Your task to perform on an android device: turn on location history Image 0: 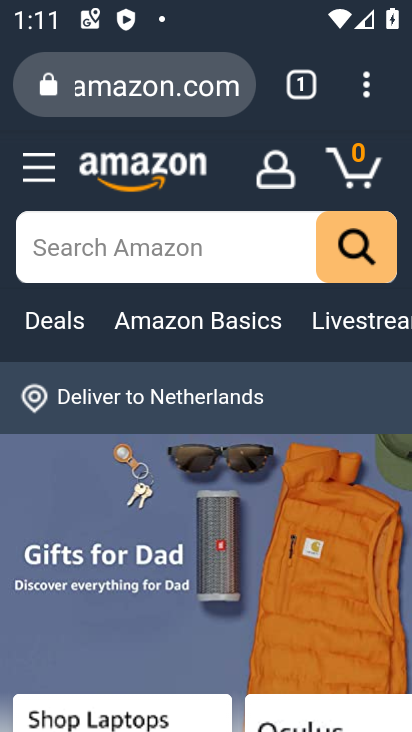
Step 0: press home button
Your task to perform on an android device: turn on location history Image 1: 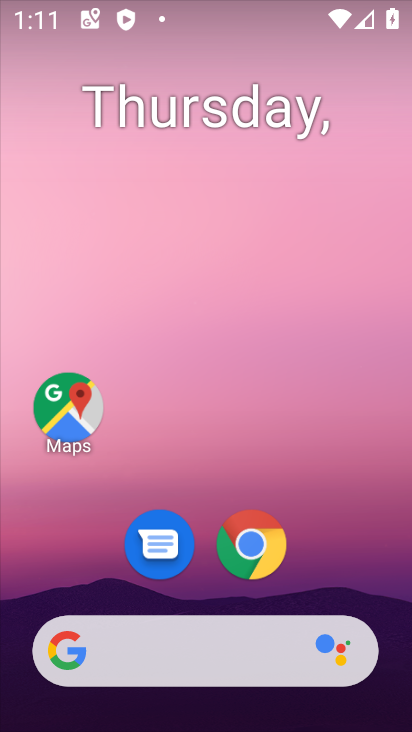
Step 1: drag from (220, 616) to (222, 77)
Your task to perform on an android device: turn on location history Image 2: 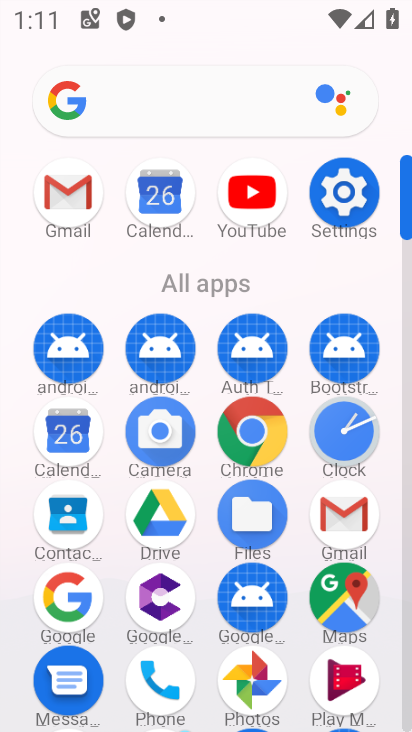
Step 2: click (329, 188)
Your task to perform on an android device: turn on location history Image 3: 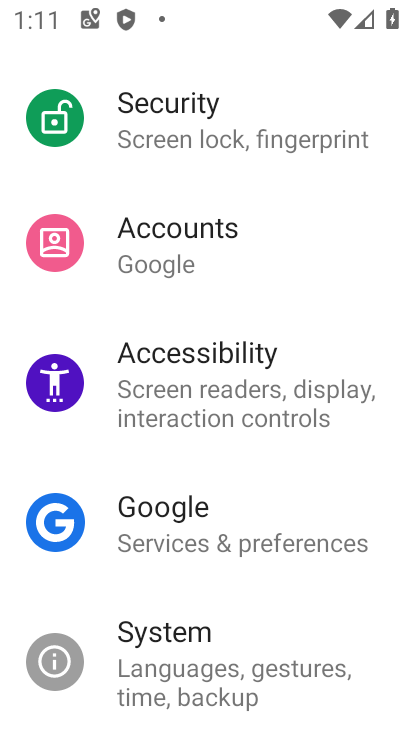
Step 3: drag from (217, 663) to (233, 201)
Your task to perform on an android device: turn on location history Image 4: 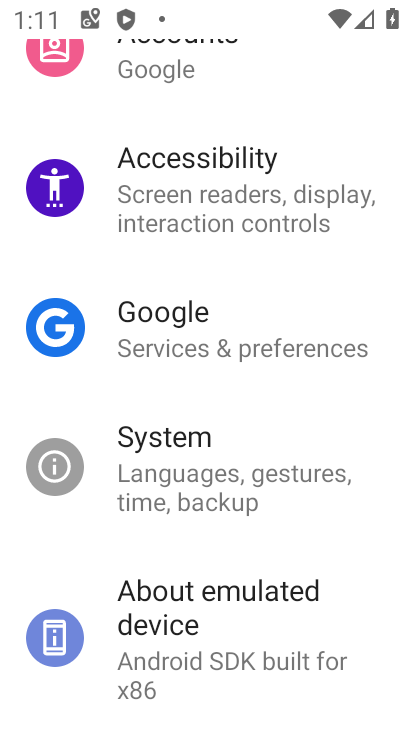
Step 4: drag from (206, 654) to (217, 257)
Your task to perform on an android device: turn on location history Image 5: 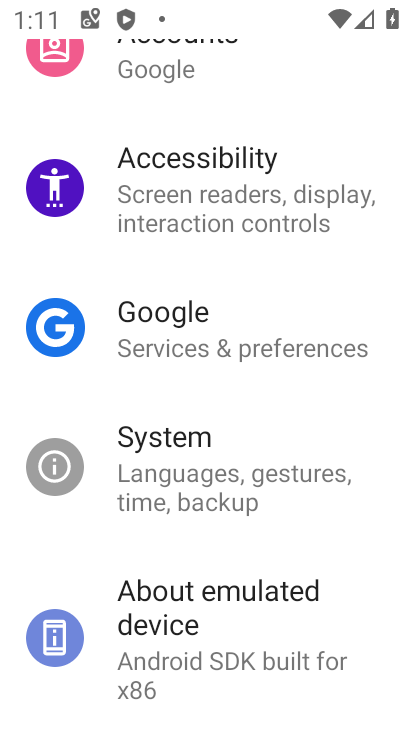
Step 5: drag from (259, 143) to (263, 565)
Your task to perform on an android device: turn on location history Image 6: 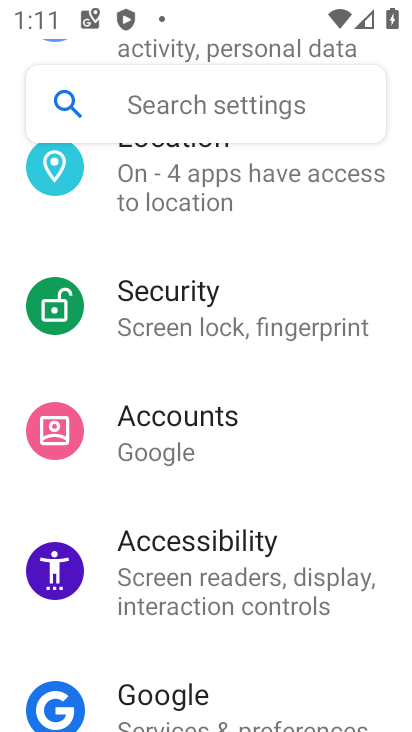
Step 6: drag from (285, 246) to (277, 562)
Your task to perform on an android device: turn on location history Image 7: 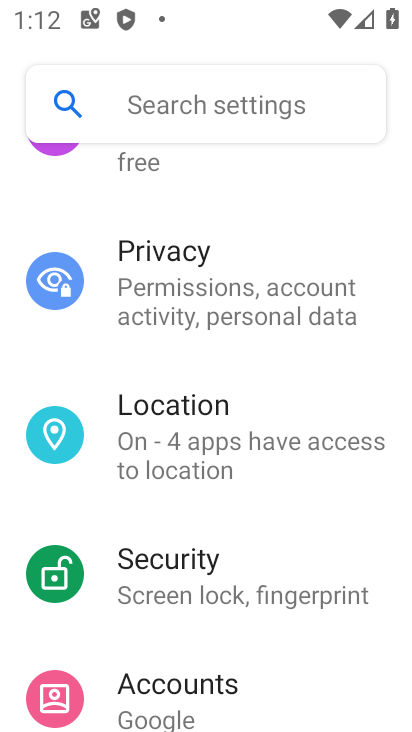
Step 7: click (174, 432)
Your task to perform on an android device: turn on location history Image 8: 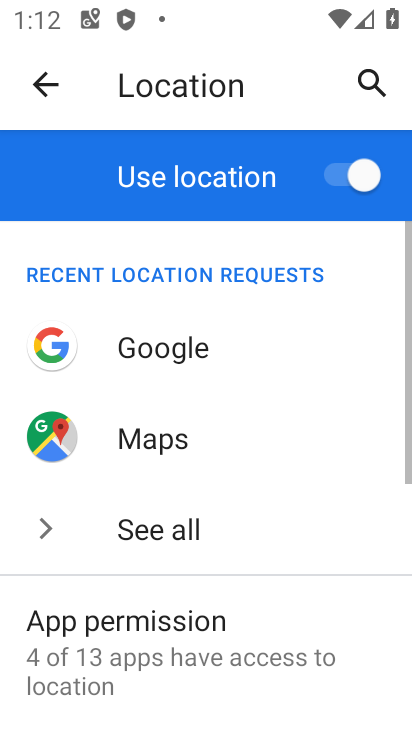
Step 8: drag from (241, 694) to (246, 372)
Your task to perform on an android device: turn on location history Image 9: 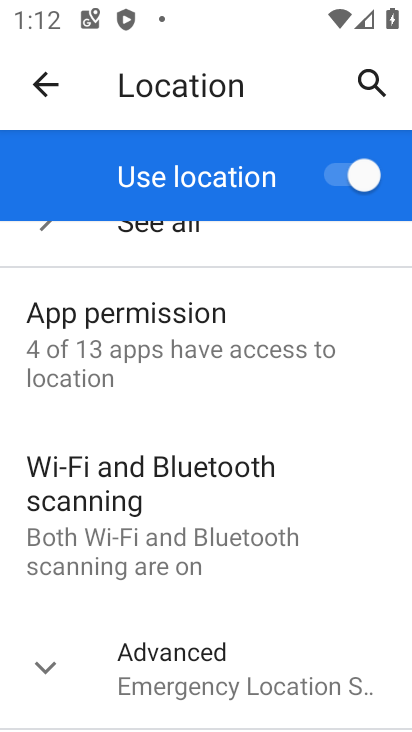
Step 9: click (200, 658)
Your task to perform on an android device: turn on location history Image 10: 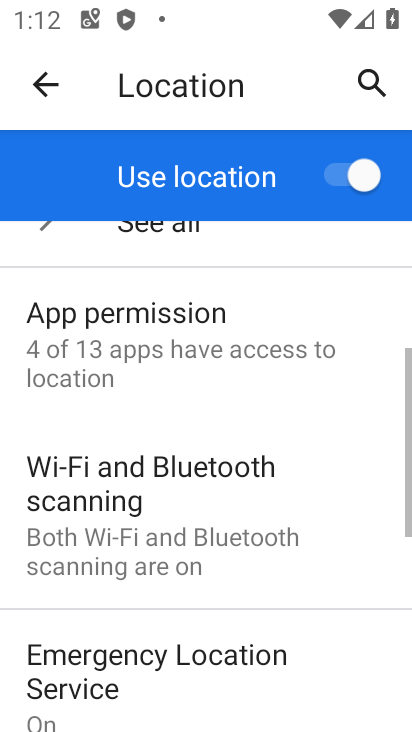
Step 10: drag from (251, 703) to (257, 317)
Your task to perform on an android device: turn on location history Image 11: 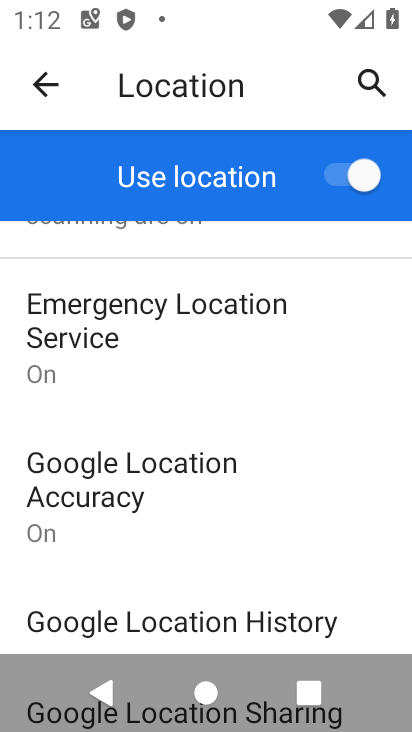
Step 11: click (197, 619)
Your task to perform on an android device: turn on location history Image 12: 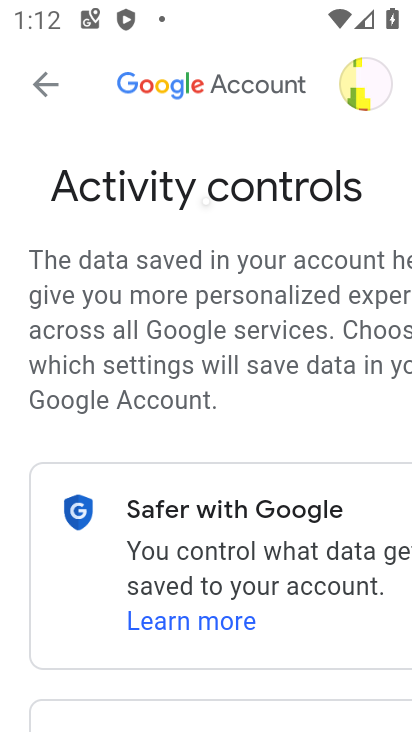
Step 12: task complete